Your task to perform on an android device: all mails in gmail Image 0: 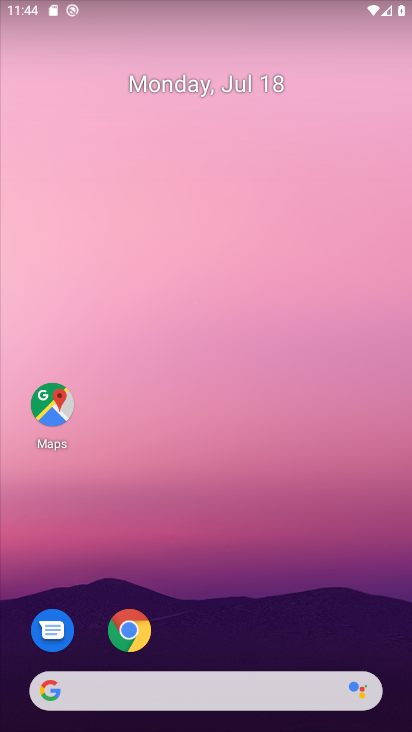
Step 0: drag from (233, 641) to (323, 30)
Your task to perform on an android device: all mails in gmail Image 1: 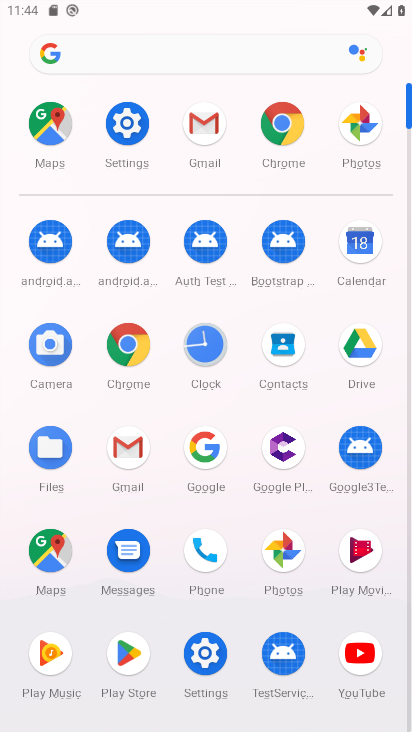
Step 1: click (130, 461)
Your task to perform on an android device: all mails in gmail Image 2: 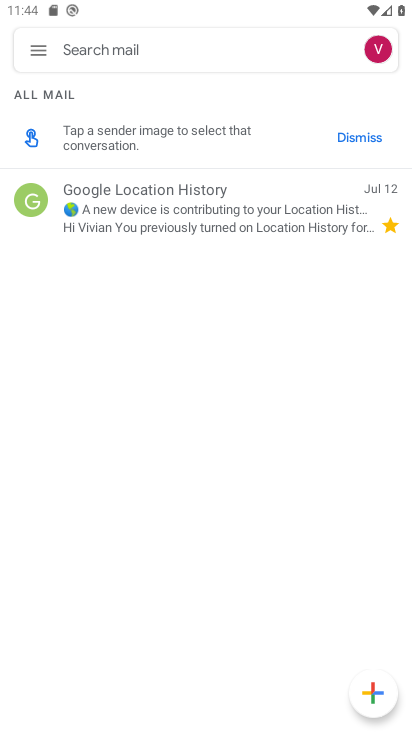
Step 2: task complete